Your task to perform on an android device: read, delete, or share a saved page in the chrome app Image 0: 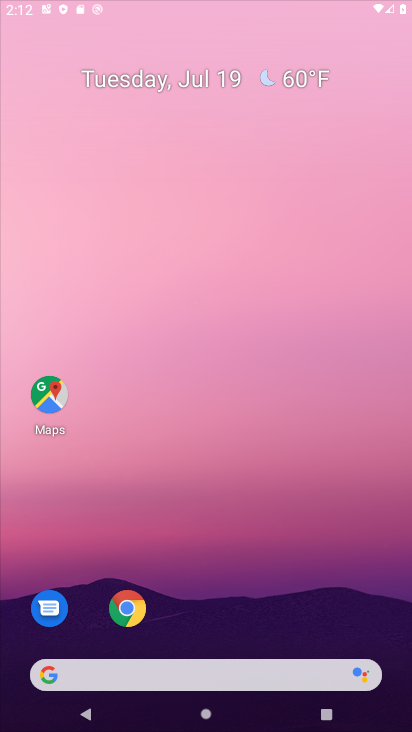
Step 0: drag from (284, 667) to (347, 26)
Your task to perform on an android device: read, delete, or share a saved page in the chrome app Image 1: 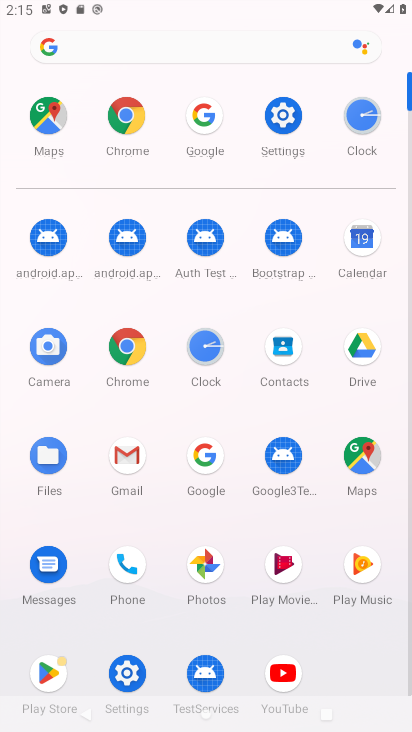
Step 1: click (113, 120)
Your task to perform on an android device: read, delete, or share a saved page in the chrome app Image 2: 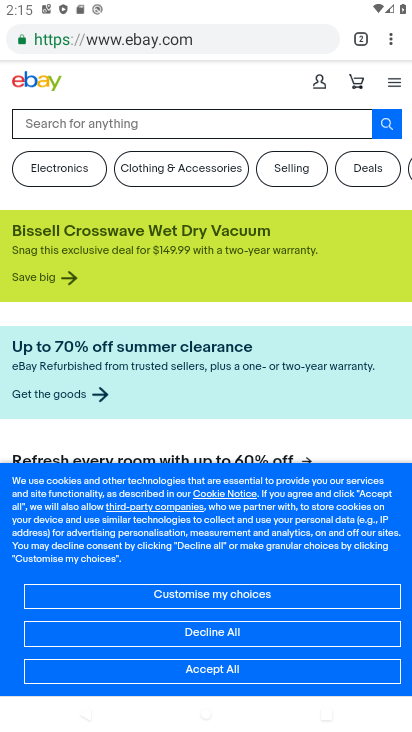
Step 2: task complete